Your task to perform on an android device: Go to network settings Image 0: 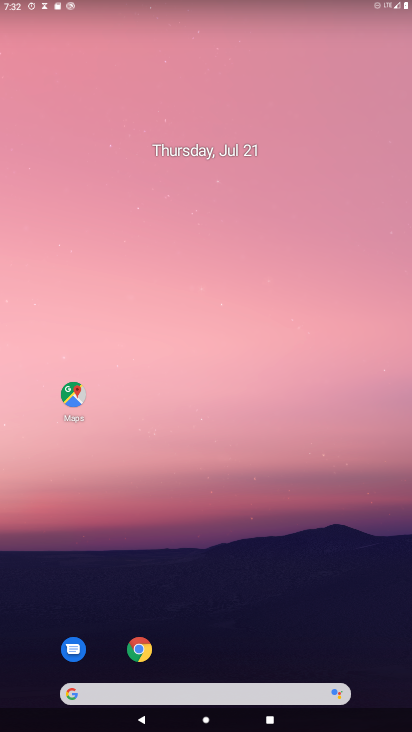
Step 0: drag from (356, 649) to (190, 119)
Your task to perform on an android device: Go to network settings Image 1: 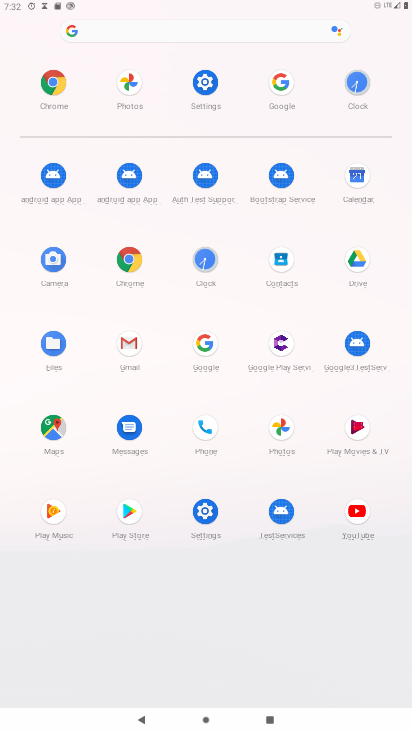
Step 1: click (200, 511)
Your task to perform on an android device: Go to network settings Image 2: 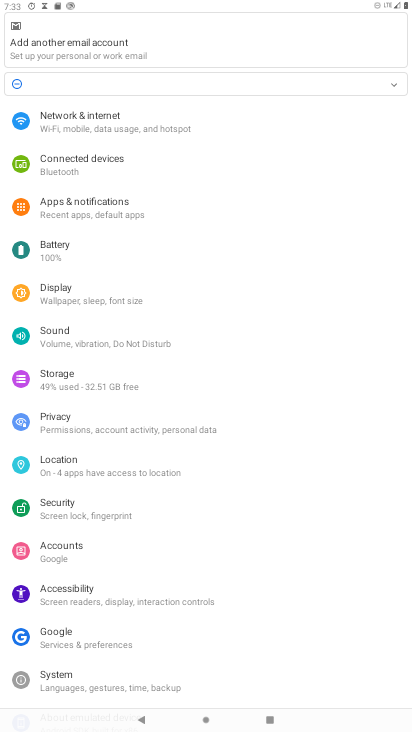
Step 2: click (82, 123)
Your task to perform on an android device: Go to network settings Image 3: 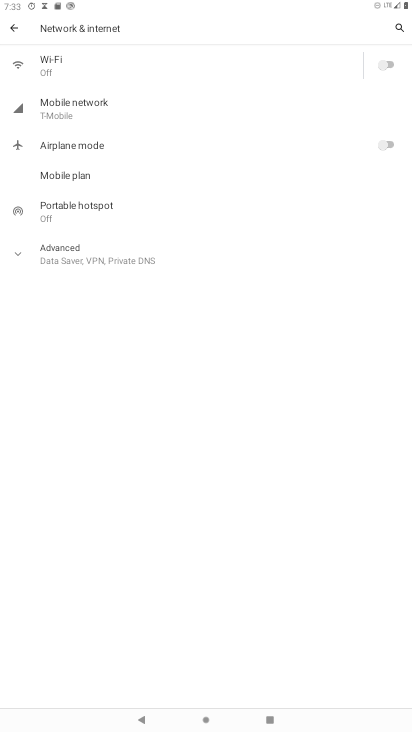
Step 3: task complete